Your task to perform on an android device: uninstall "Paramount+ | Peak Streaming" Image 0: 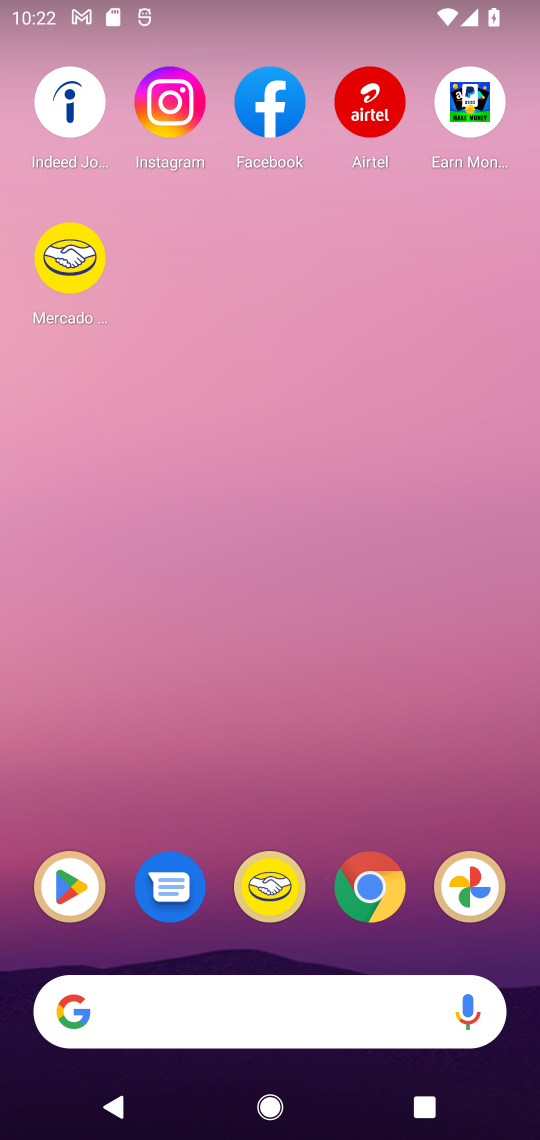
Step 0: press back button
Your task to perform on an android device: uninstall "Paramount+ | Peak Streaming" Image 1: 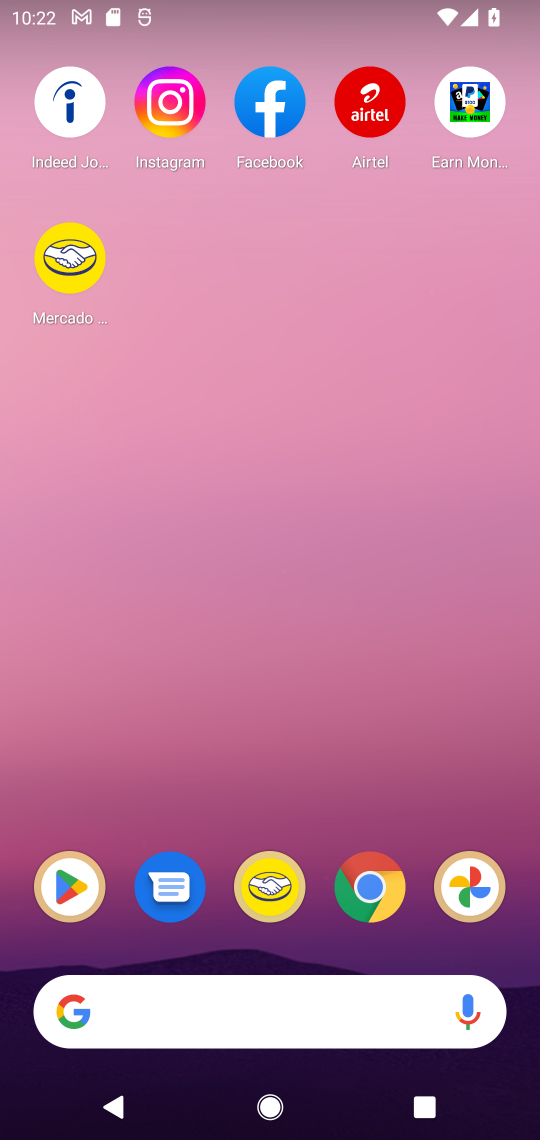
Step 1: drag from (258, 991) to (299, 13)
Your task to perform on an android device: uninstall "Paramount+ | Peak Streaming" Image 2: 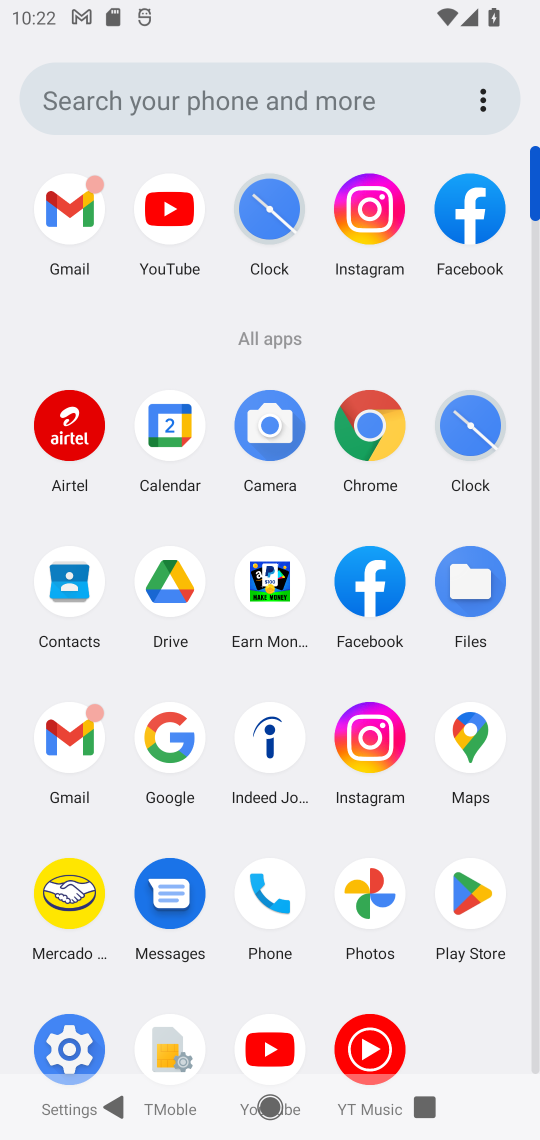
Step 2: click (450, 907)
Your task to perform on an android device: uninstall "Paramount+ | Peak Streaming" Image 3: 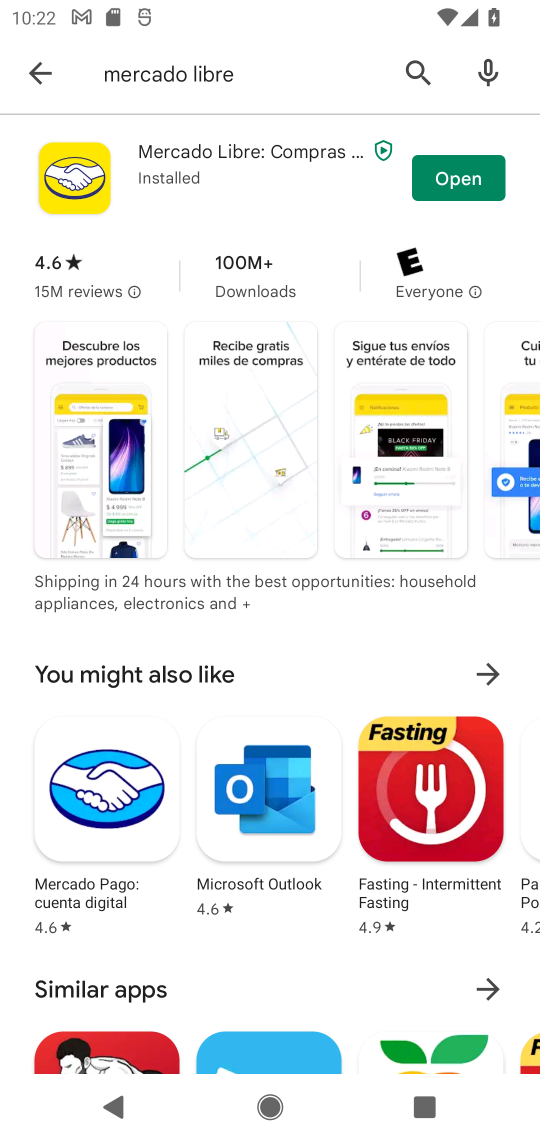
Step 3: click (42, 80)
Your task to perform on an android device: uninstall "Paramount+ | Peak Streaming" Image 4: 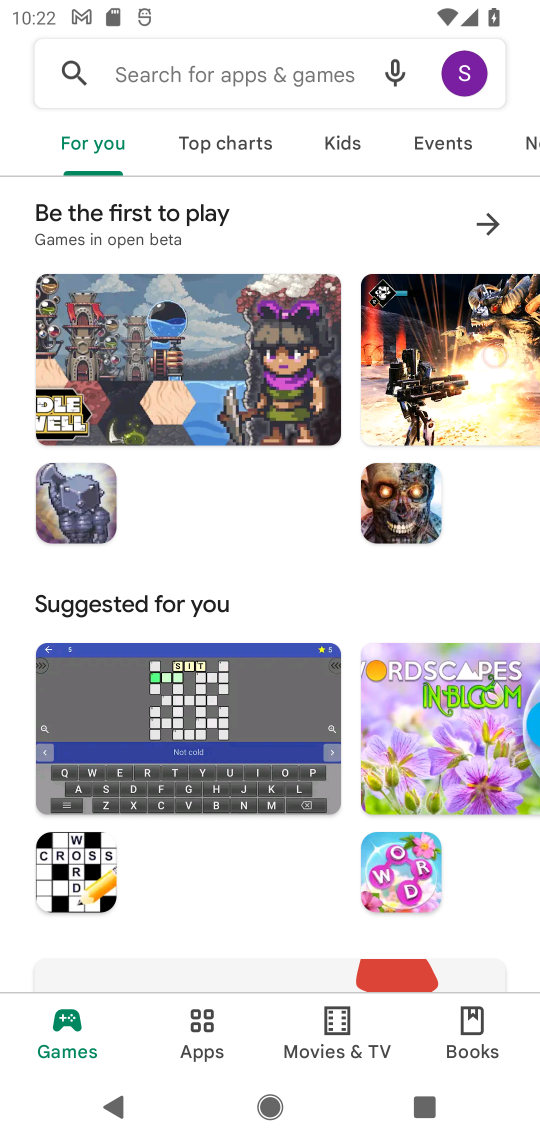
Step 4: click (111, 77)
Your task to perform on an android device: uninstall "Paramount+ | Peak Streaming" Image 5: 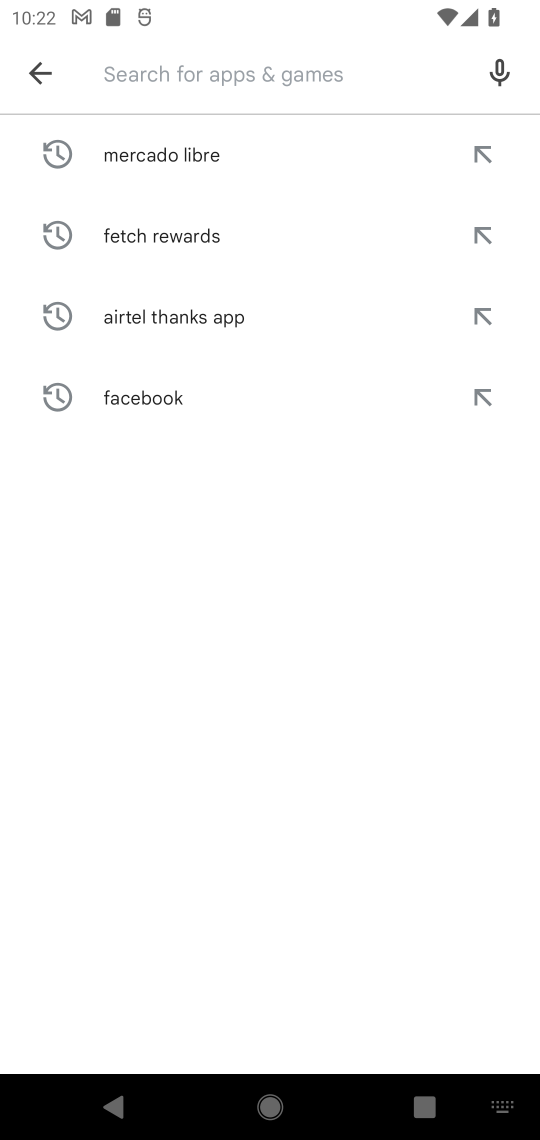
Step 5: type ""
Your task to perform on an android device: uninstall "Paramount+ | Peak Streaming" Image 6: 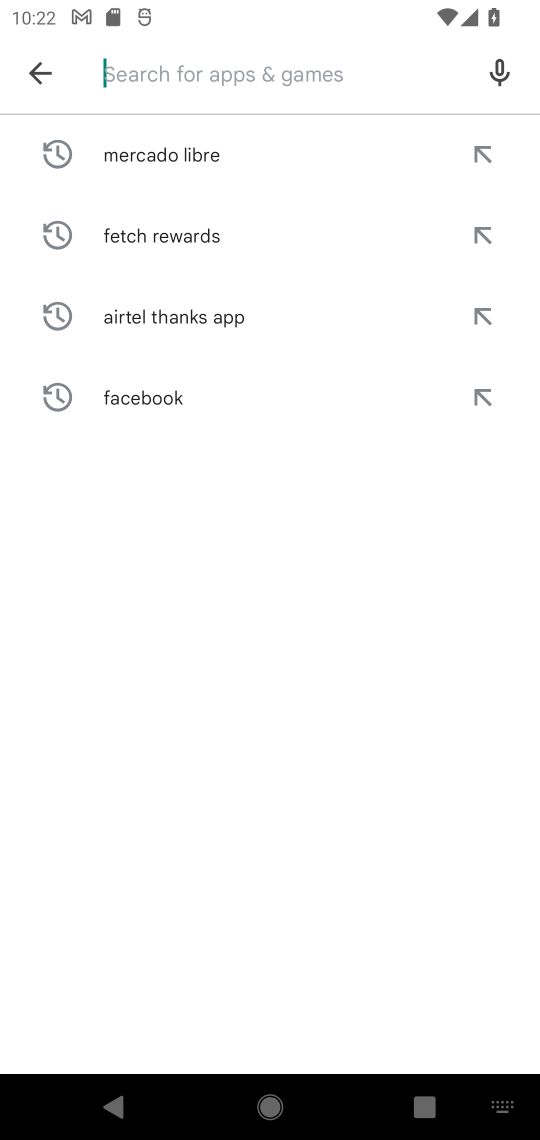
Step 6: type "Paramount"
Your task to perform on an android device: uninstall "Paramount+ | Peak Streaming" Image 7: 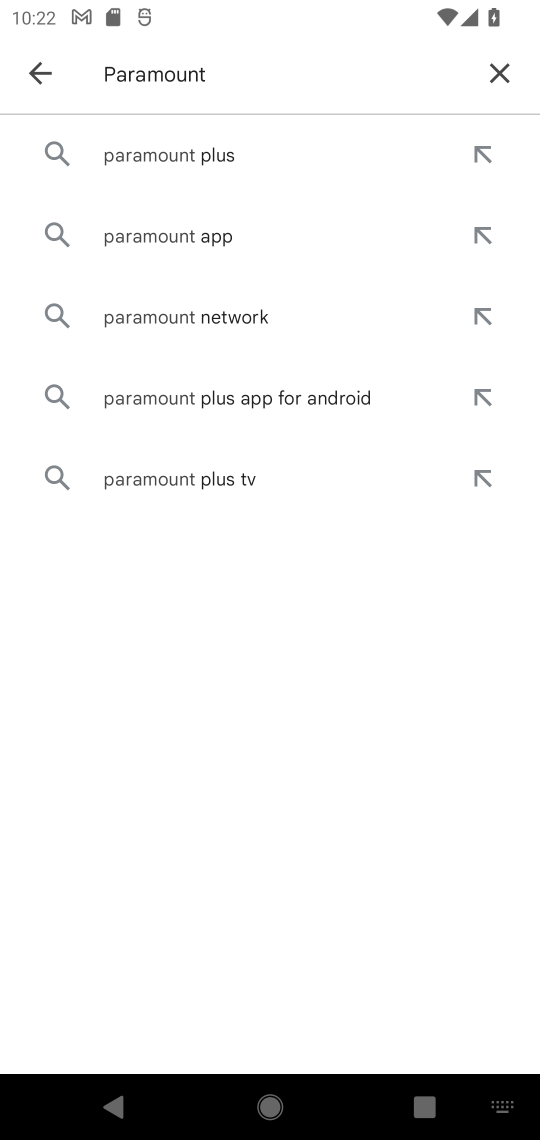
Step 7: type "+ | Peak Streaming"
Your task to perform on an android device: uninstall "Paramount+ | Peak Streaming" Image 8: 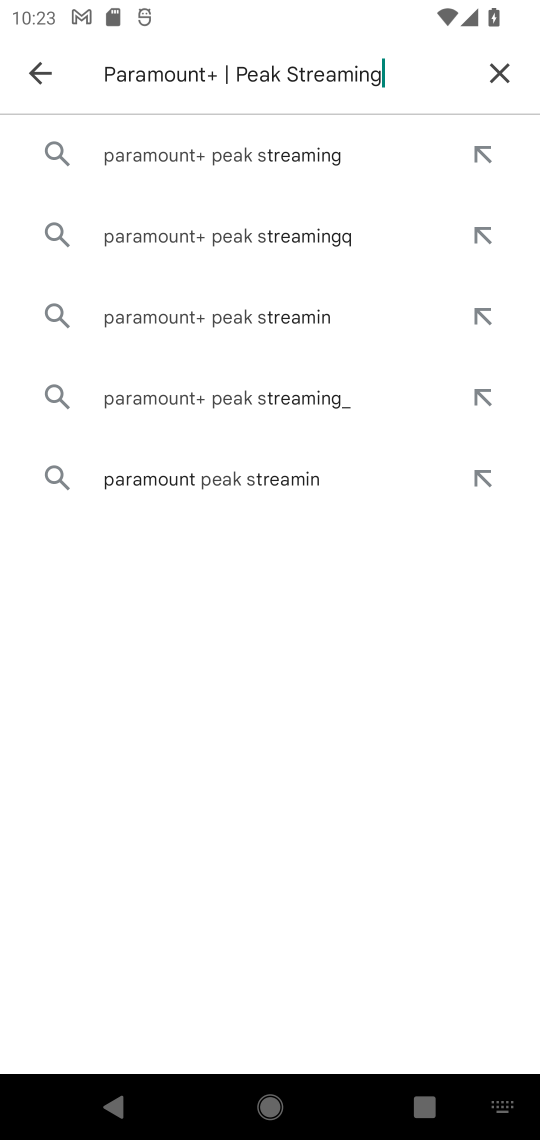
Step 8: type ""
Your task to perform on an android device: uninstall "Paramount+ | Peak Streaming" Image 9: 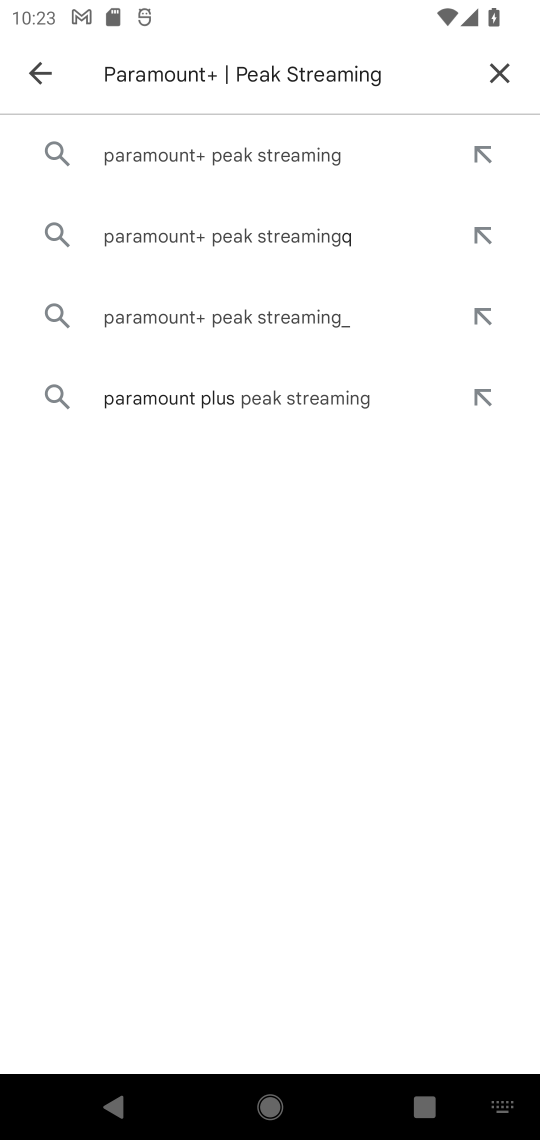
Step 9: click (159, 147)
Your task to perform on an android device: uninstall "Paramount+ | Peak Streaming" Image 10: 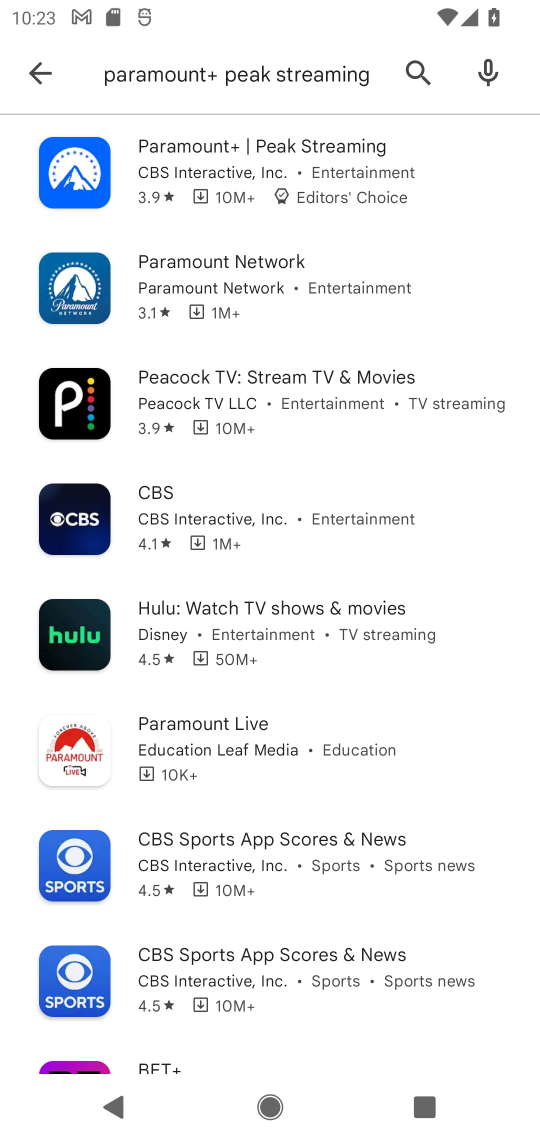
Step 10: click (263, 175)
Your task to perform on an android device: uninstall "Paramount+ | Peak Streaming" Image 11: 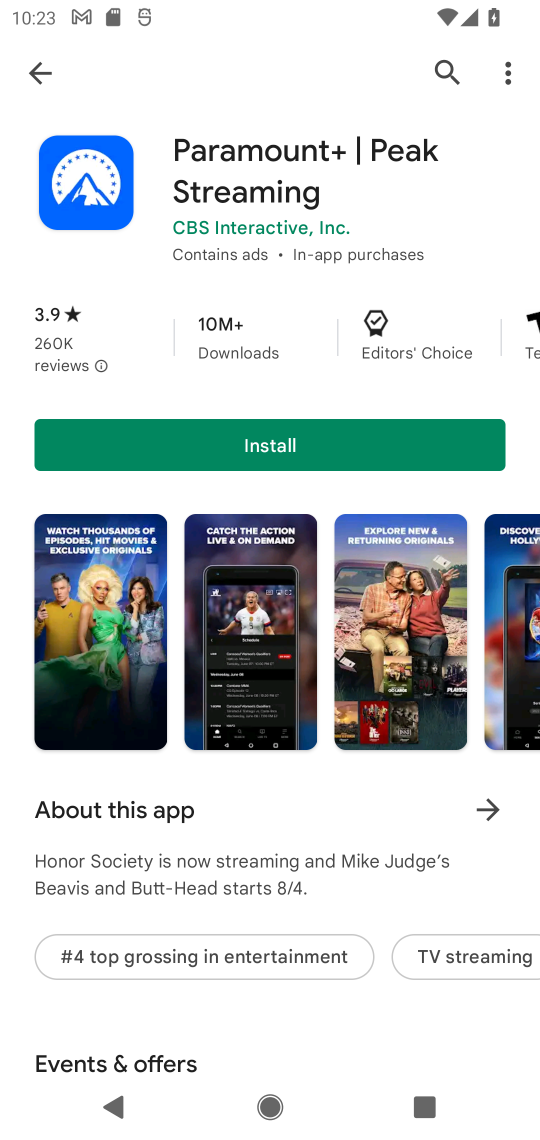
Step 11: task complete